Your task to perform on an android device: set an alarm Image 0: 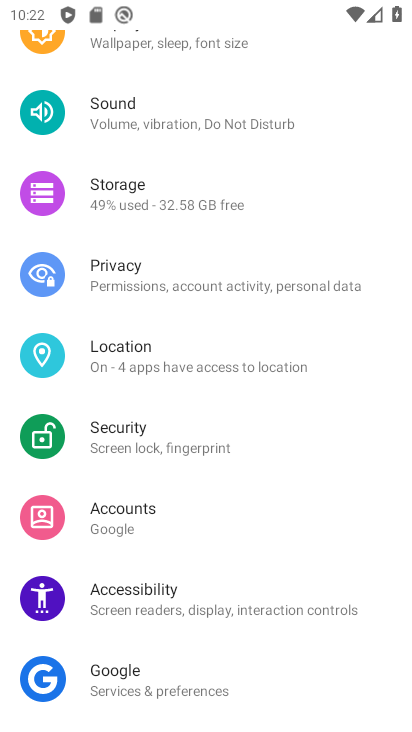
Step 0: press home button
Your task to perform on an android device: set an alarm Image 1: 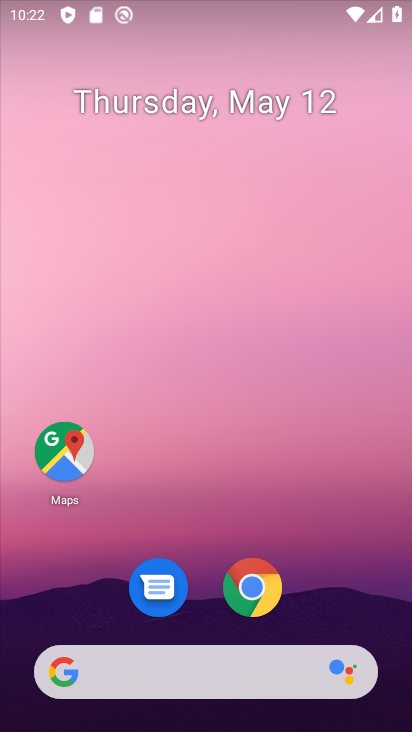
Step 1: drag from (275, 139) to (251, 97)
Your task to perform on an android device: set an alarm Image 2: 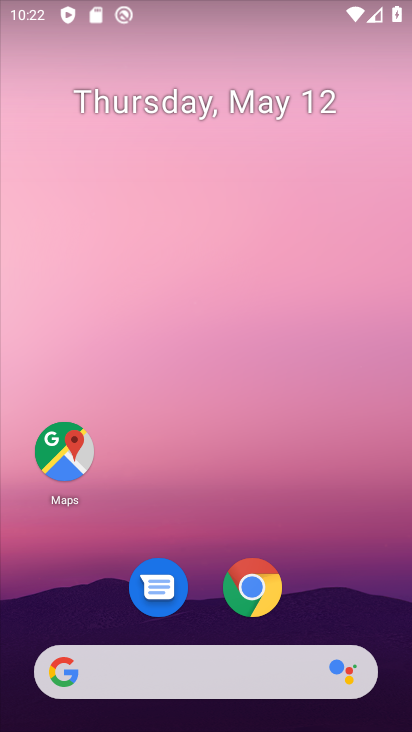
Step 2: drag from (350, 516) to (334, 13)
Your task to perform on an android device: set an alarm Image 3: 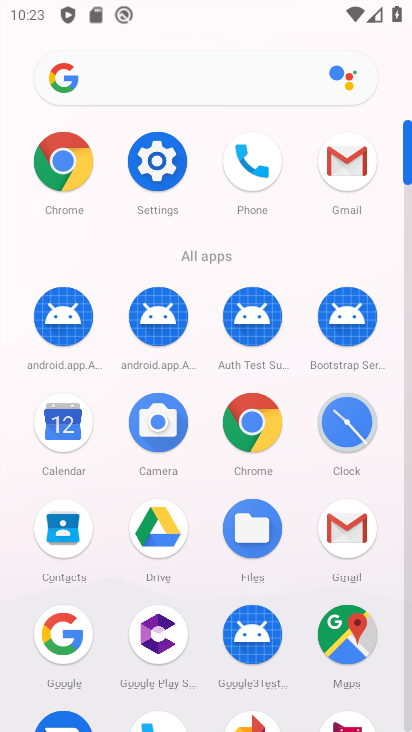
Step 3: click (344, 423)
Your task to perform on an android device: set an alarm Image 4: 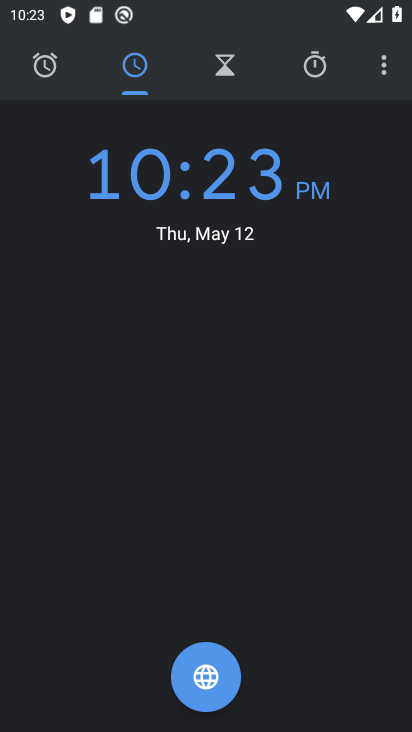
Step 4: click (65, 78)
Your task to perform on an android device: set an alarm Image 5: 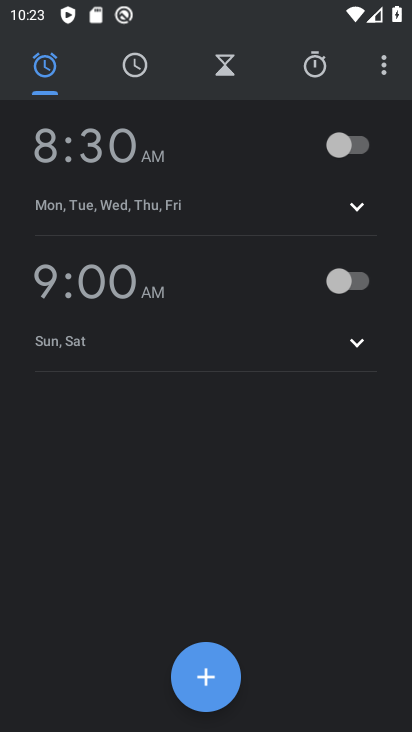
Step 5: click (352, 136)
Your task to perform on an android device: set an alarm Image 6: 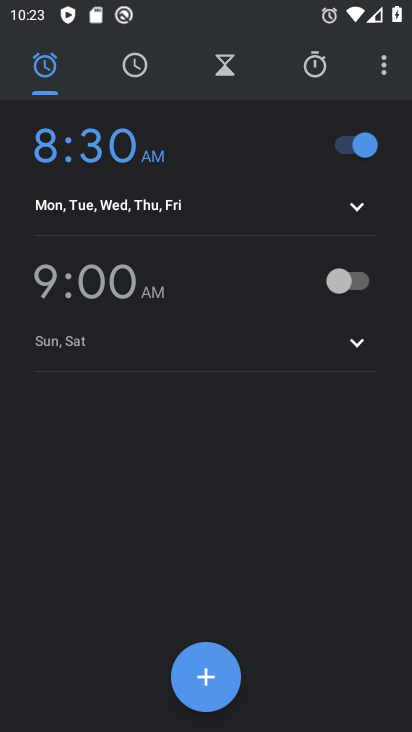
Step 6: task complete